Your task to perform on an android device: Show me productivity apps on the Play Store Image 0: 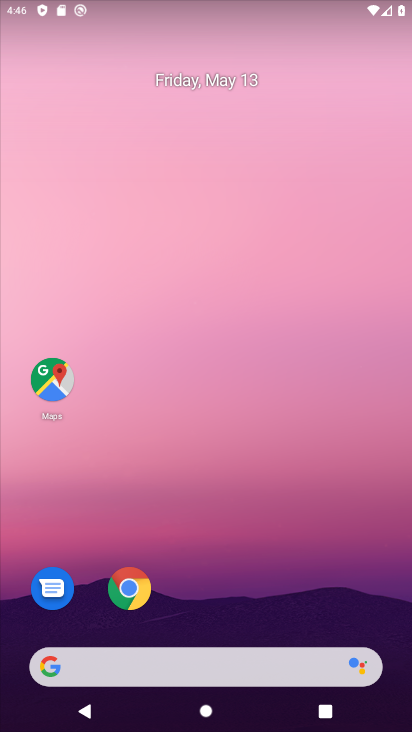
Step 0: drag from (173, 648) to (293, 172)
Your task to perform on an android device: Show me productivity apps on the Play Store Image 1: 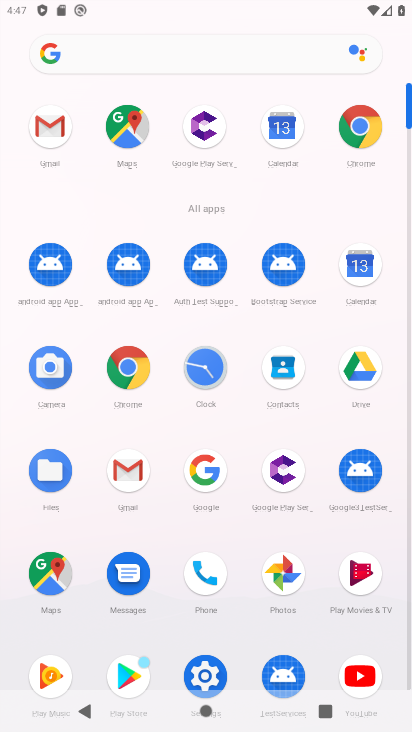
Step 1: drag from (165, 659) to (233, 465)
Your task to perform on an android device: Show me productivity apps on the Play Store Image 2: 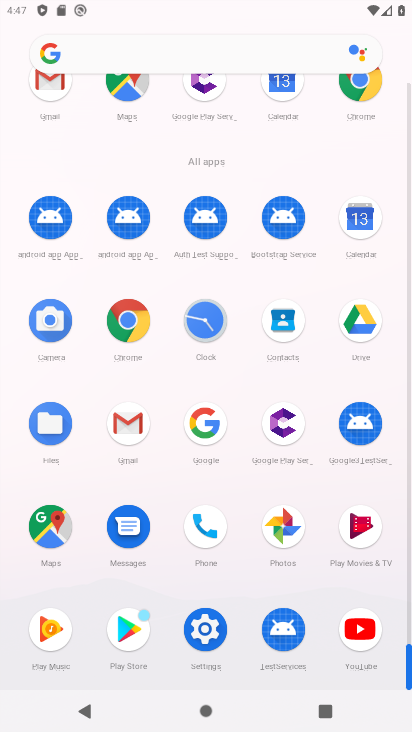
Step 2: click (117, 635)
Your task to perform on an android device: Show me productivity apps on the Play Store Image 3: 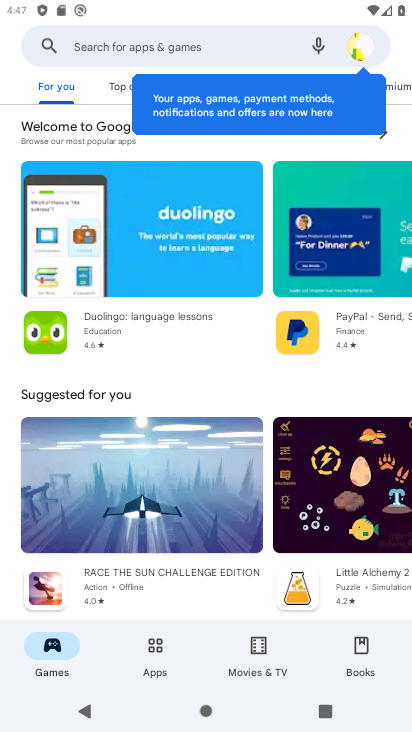
Step 3: click (178, 670)
Your task to perform on an android device: Show me productivity apps on the Play Store Image 4: 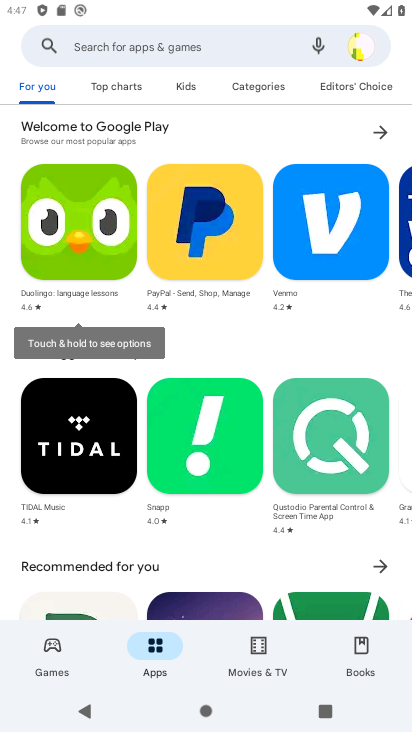
Step 4: click (253, 93)
Your task to perform on an android device: Show me productivity apps on the Play Store Image 5: 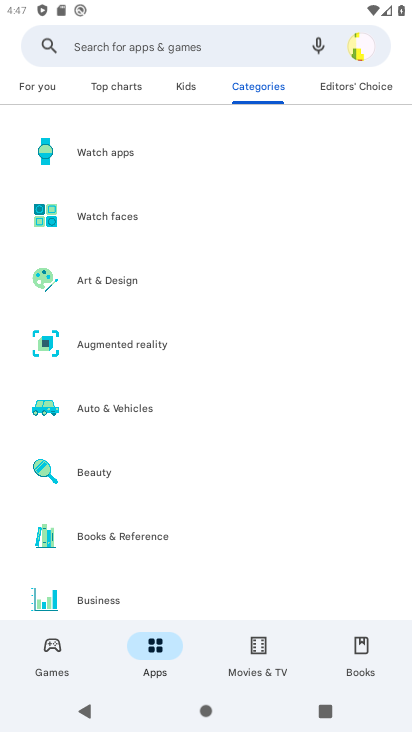
Step 5: drag from (198, 527) to (322, 155)
Your task to perform on an android device: Show me productivity apps on the Play Store Image 6: 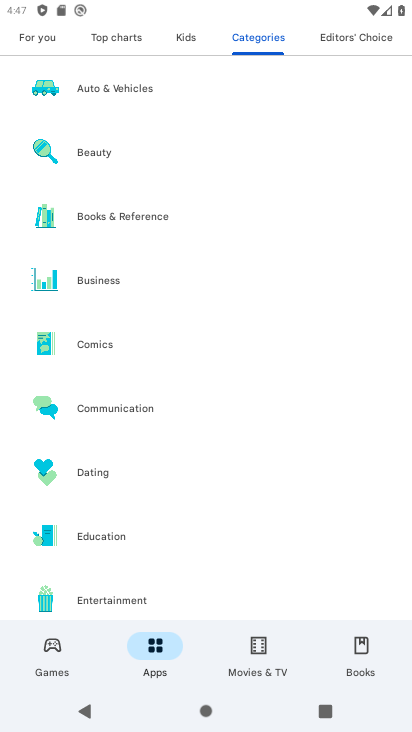
Step 6: drag from (157, 616) to (272, 134)
Your task to perform on an android device: Show me productivity apps on the Play Store Image 7: 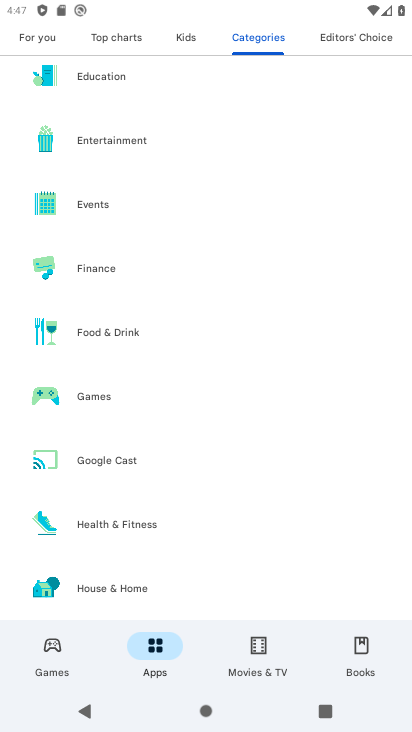
Step 7: drag from (149, 554) to (239, 155)
Your task to perform on an android device: Show me productivity apps on the Play Store Image 8: 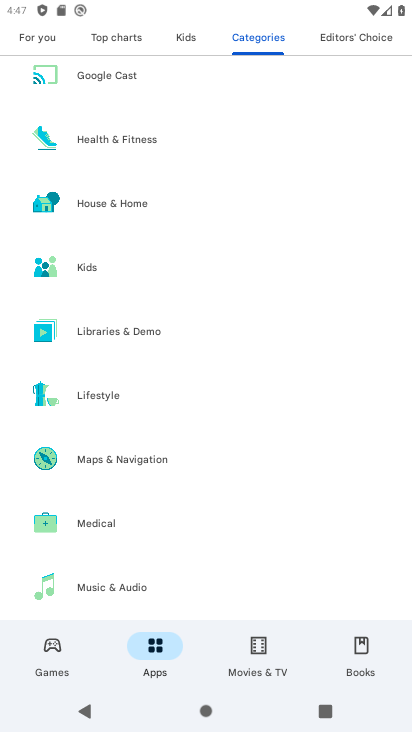
Step 8: drag from (137, 580) to (247, 157)
Your task to perform on an android device: Show me productivity apps on the Play Store Image 9: 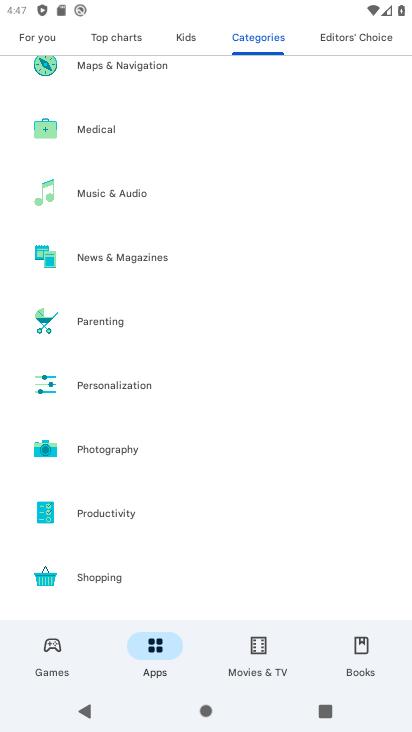
Step 9: click (163, 514)
Your task to perform on an android device: Show me productivity apps on the Play Store Image 10: 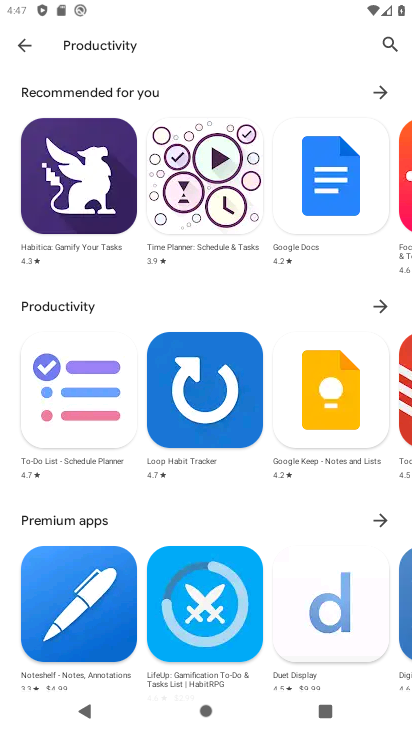
Step 10: task complete